Your task to perform on an android device: choose inbox layout in the gmail app Image 0: 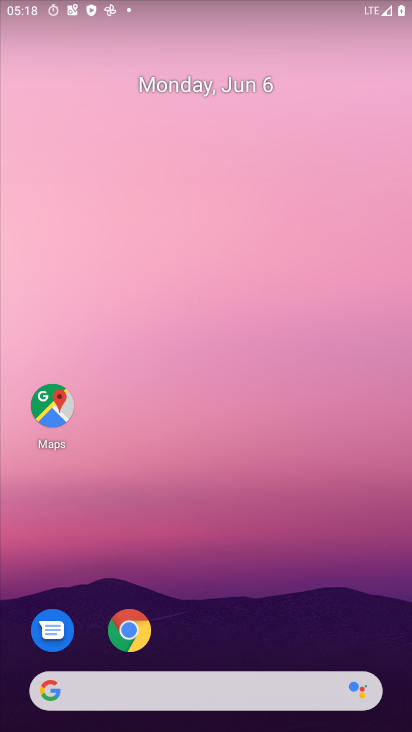
Step 0: drag from (284, 628) to (351, 30)
Your task to perform on an android device: choose inbox layout in the gmail app Image 1: 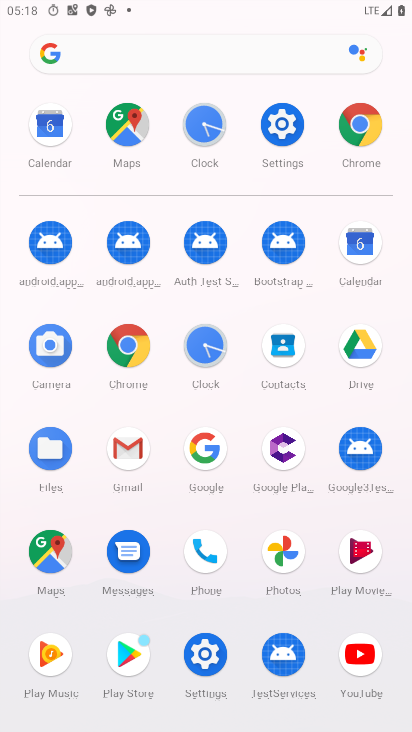
Step 1: click (123, 442)
Your task to perform on an android device: choose inbox layout in the gmail app Image 2: 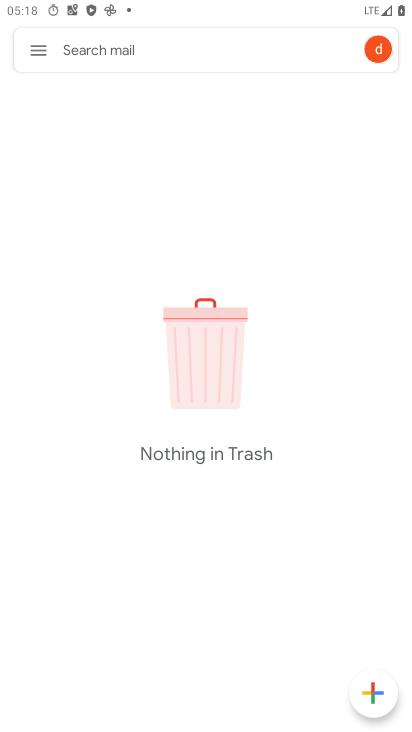
Step 2: click (37, 48)
Your task to perform on an android device: choose inbox layout in the gmail app Image 3: 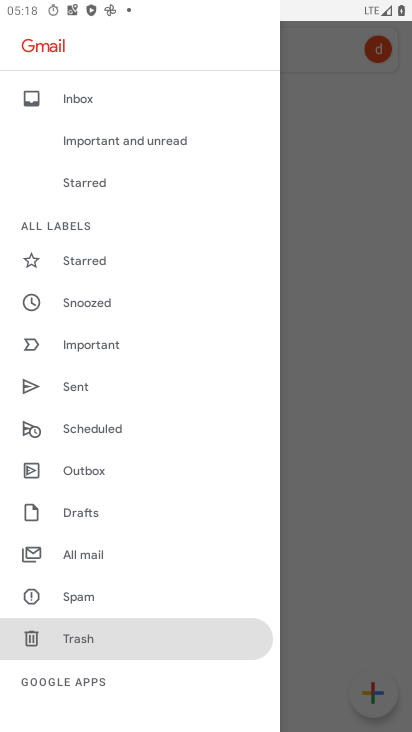
Step 3: drag from (155, 598) to (160, 305)
Your task to perform on an android device: choose inbox layout in the gmail app Image 4: 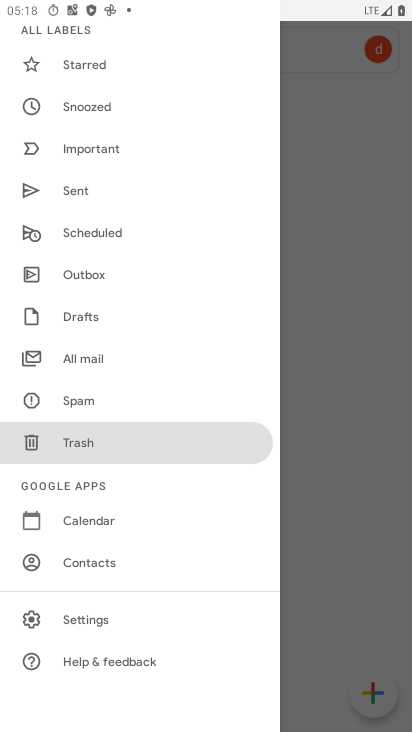
Step 4: click (87, 614)
Your task to perform on an android device: choose inbox layout in the gmail app Image 5: 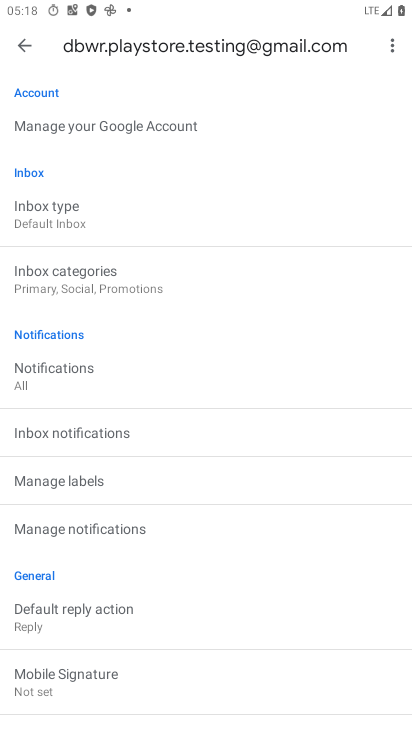
Step 5: click (52, 211)
Your task to perform on an android device: choose inbox layout in the gmail app Image 6: 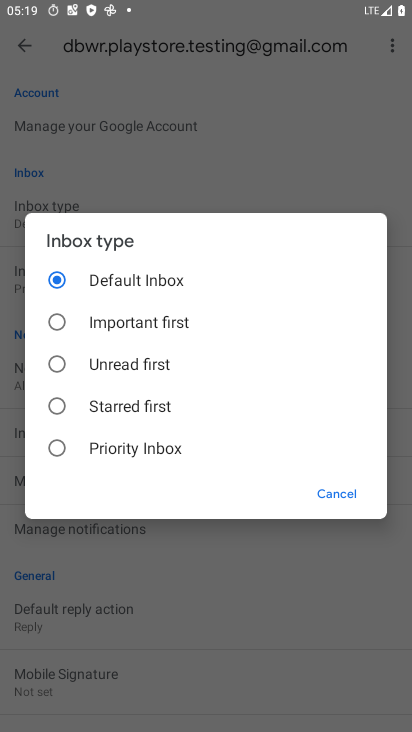
Step 6: click (119, 444)
Your task to perform on an android device: choose inbox layout in the gmail app Image 7: 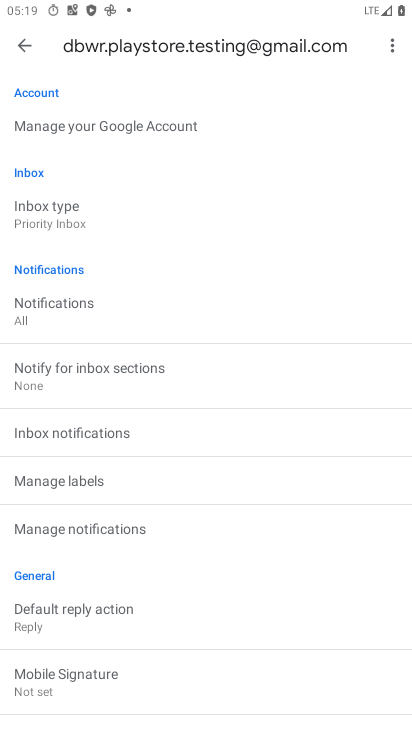
Step 7: task complete